Your task to perform on an android device: turn notification dots on Image 0: 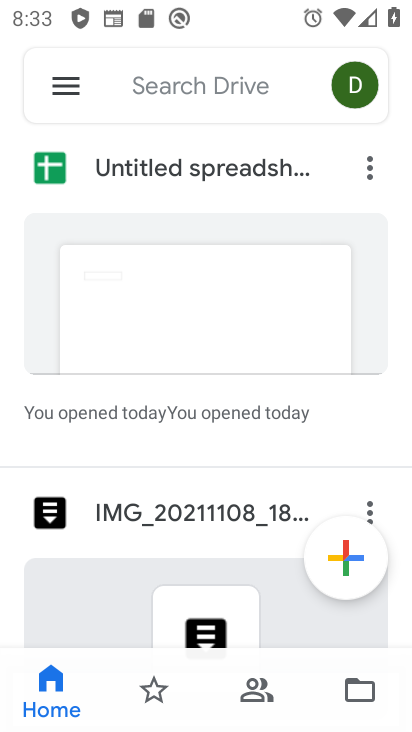
Step 0: press home button
Your task to perform on an android device: turn notification dots on Image 1: 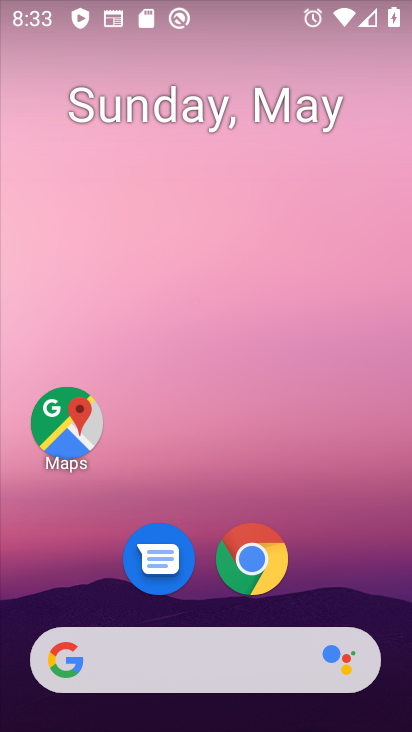
Step 1: drag from (6, 516) to (88, 166)
Your task to perform on an android device: turn notification dots on Image 2: 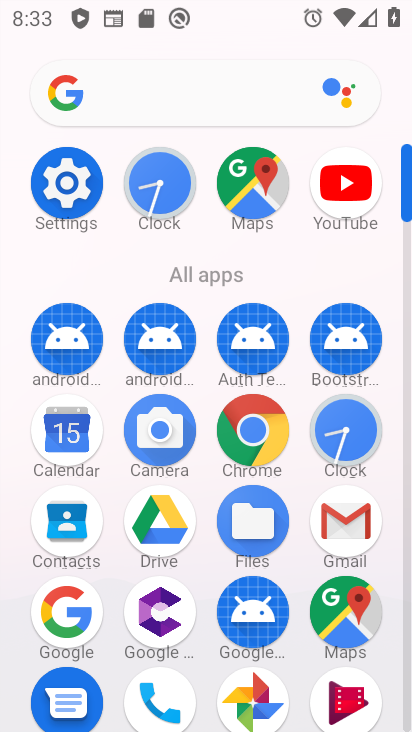
Step 2: click (60, 181)
Your task to perform on an android device: turn notification dots on Image 3: 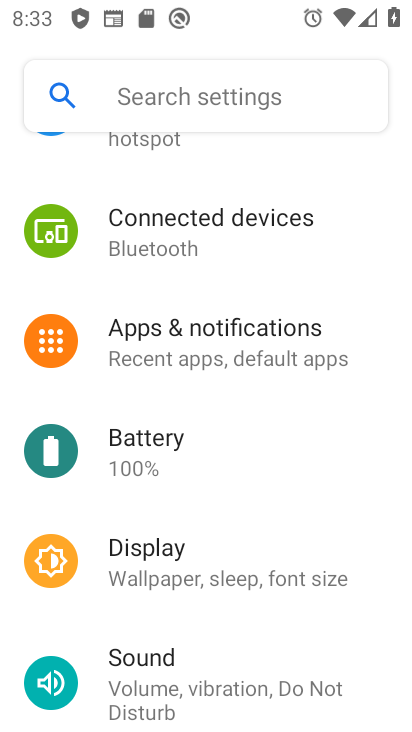
Step 3: click (132, 333)
Your task to perform on an android device: turn notification dots on Image 4: 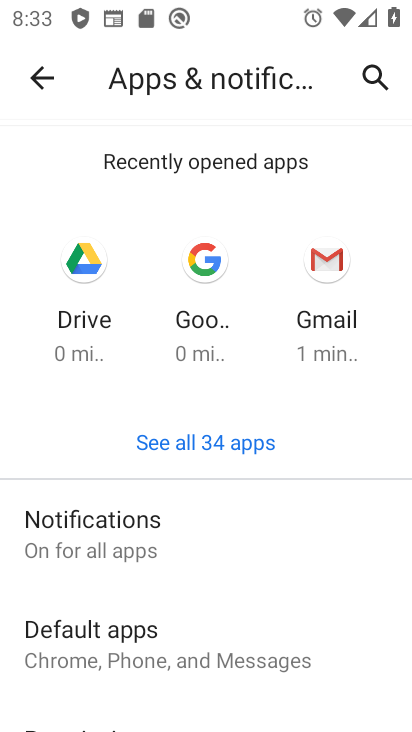
Step 4: click (55, 547)
Your task to perform on an android device: turn notification dots on Image 5: 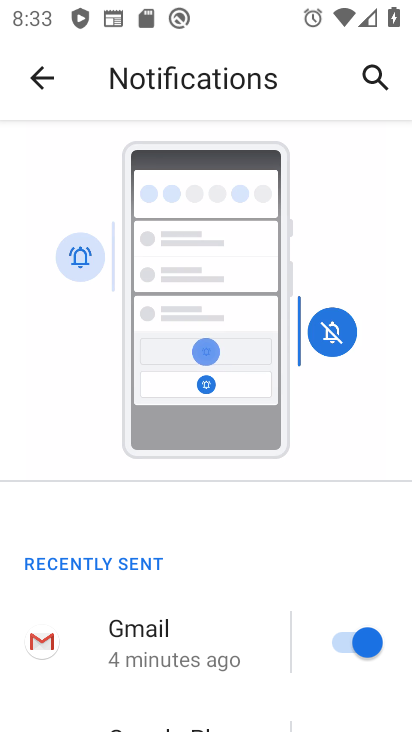
Step 5: drag from (8, 437) to (80, 189)
Your task to perform on an android device: turn notification dots on Image 6: 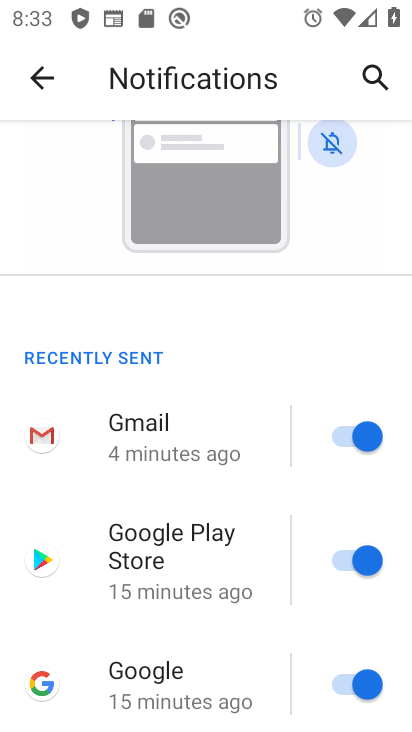
Step 6: drag from (20, 644) to (185, 275)
Your task to perform on an android device: turn notification dots on Image 7: 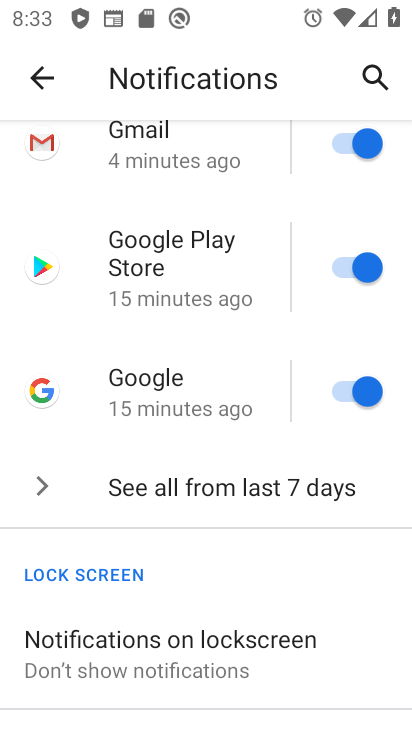
Step 7: drag from (22, 583) to (151, 319)
Your task to perform on an android device: turn notification dots on Image 8: 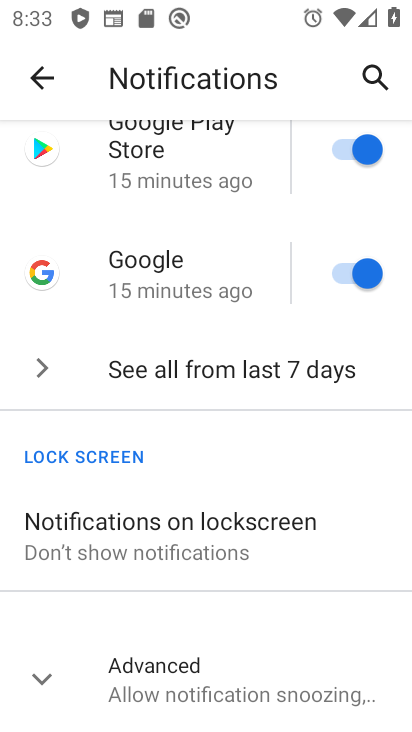
Step 8: click (88, 670)
Your task to perform on an android device: turn notification dots on Image 9: 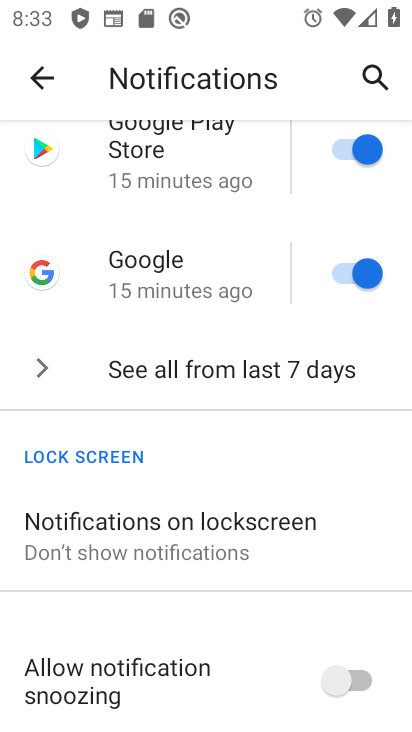
Step 9: drag from (19, 384) to (83, 260)
Your task to perform on an android device: turn notification dots on Image 10: 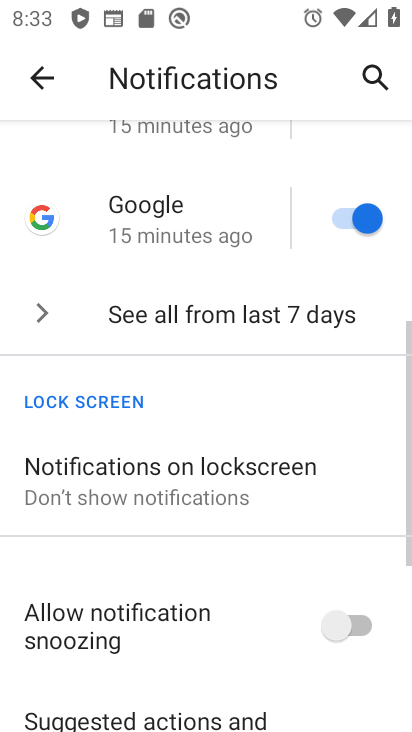
Step 10: drag from (8, 394) to (196, 306)
Your task to perform on an android device: turn notification dots on Image 11: 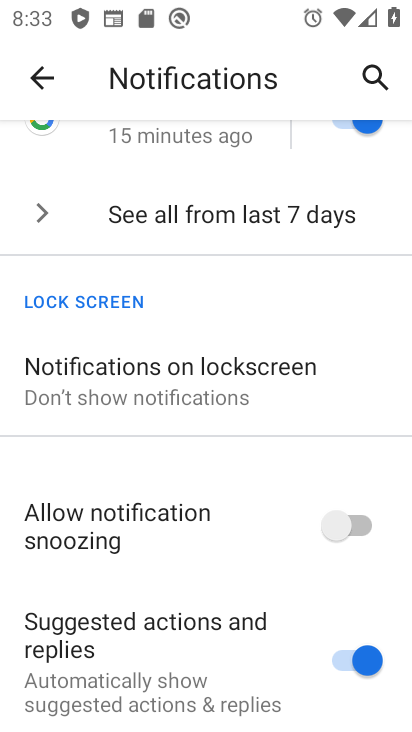
Step 11: drag from (26, 592) to (171, 299)
Your task to perform on an android device: turn notification dots on Image 12: 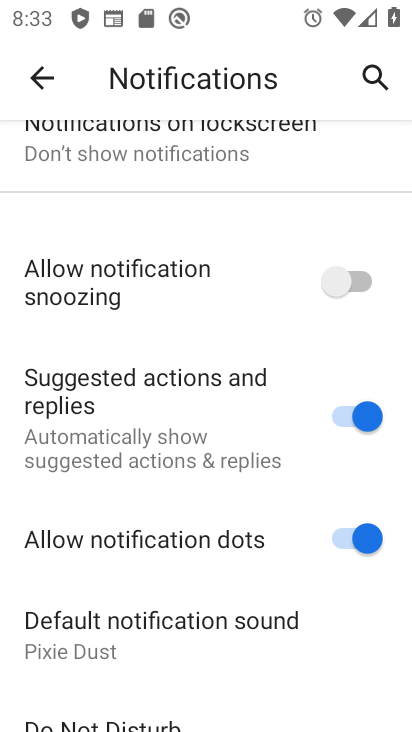
Step 12: click (368, 536)
Your task to perform on an android device: turn notification dots on Image 13: 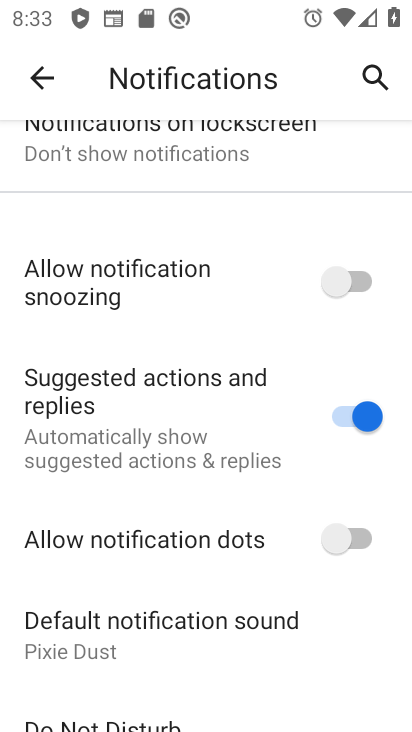
Step 13: task complete